Your task to perform on an android device: turn on translation in the chrome app Image 0: 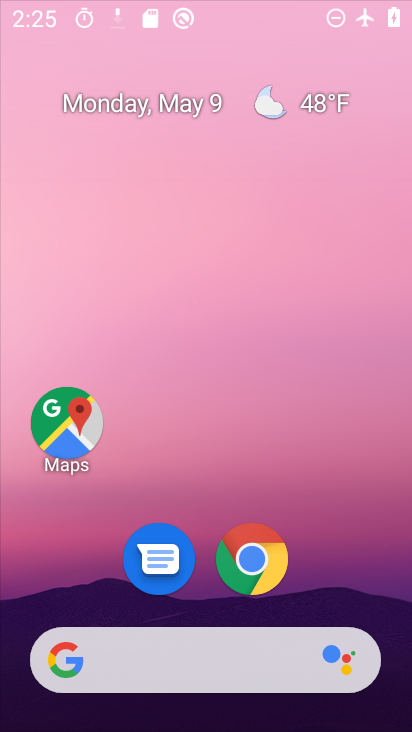
Step 0: click (263, 374)
Your task to perform on an android device: turn on translation in the chrome app Image 1: 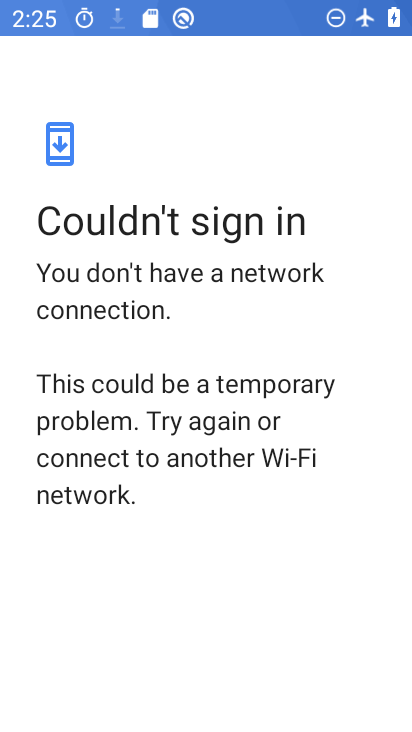
Step 1: drag from (239, 640) to (287, 334)
Your task to perform on an android device: turn on translation in the chrome app Image 2: 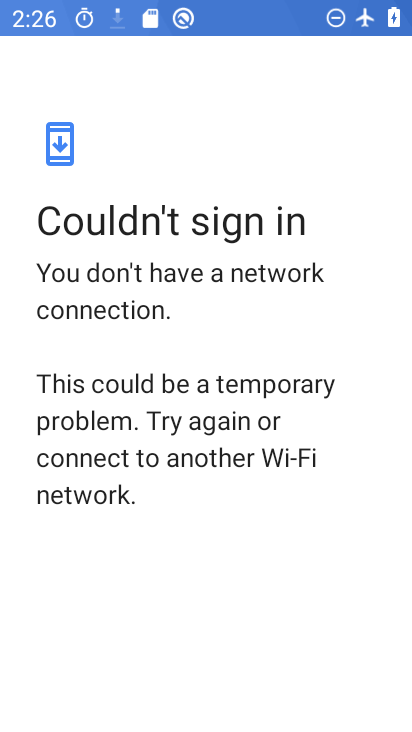
Step 2: drag from (323, 398) to (347, 349)
Your task to perform on an android device: turn on translation in the chrome app Image 3: 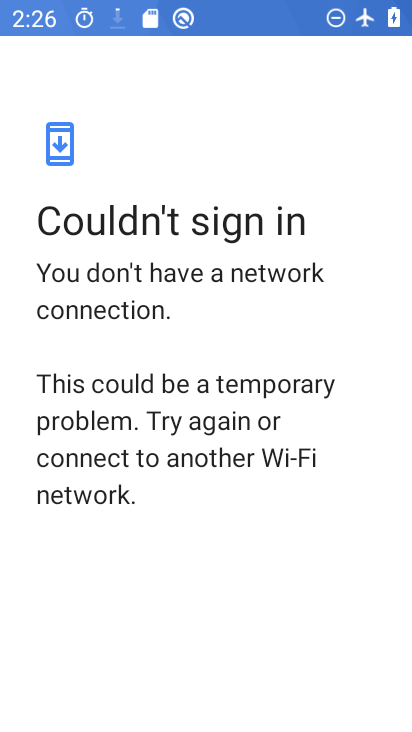
Step 3: press back button
Your task to perform on an android device: turn on translation in the chrome app Image 4: 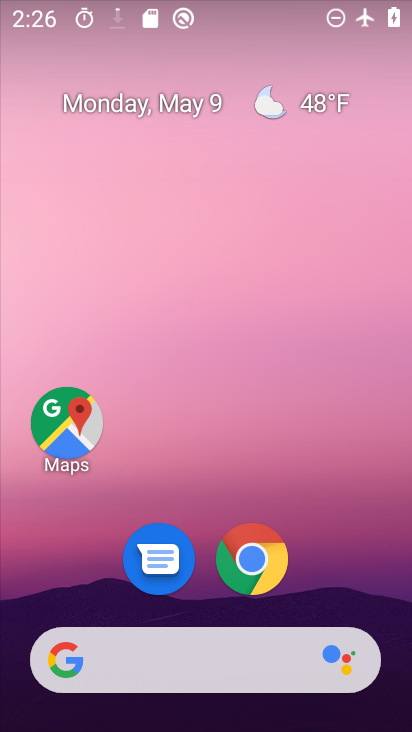
Step 4: drag from (212, 604) to (254, 42)
Your task to perform on an android device: turn on translation in the chrome app Image 5: 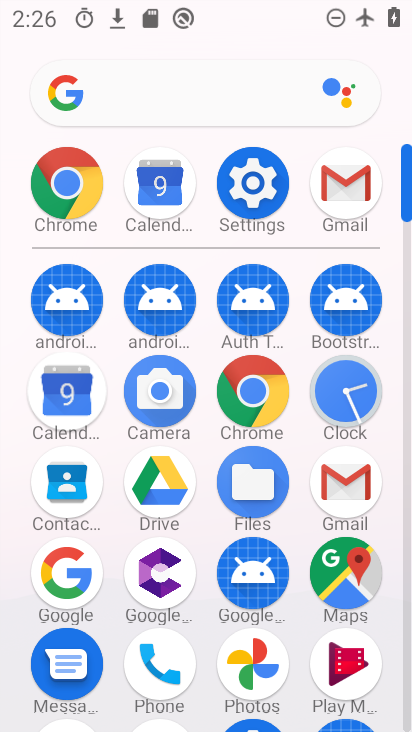
Step 5: click (241, 404)
Your task to perform on an android device: turn on translation in the chrome app Image 6: 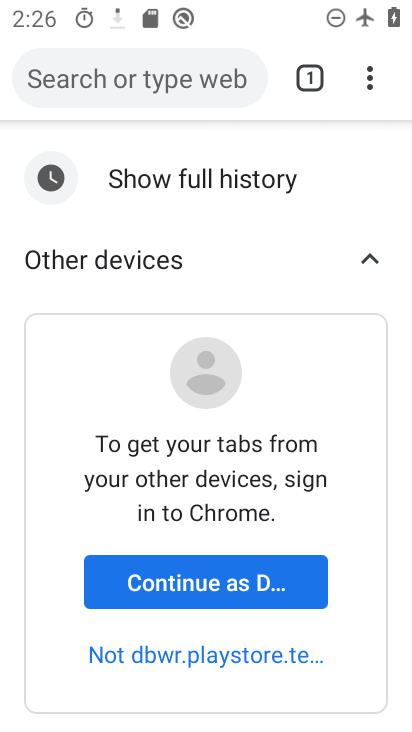
Step 6: drag from (182, 615) to (273, 55)
Your task to perform on an android device: turn on translation in the chrome app Image 7: 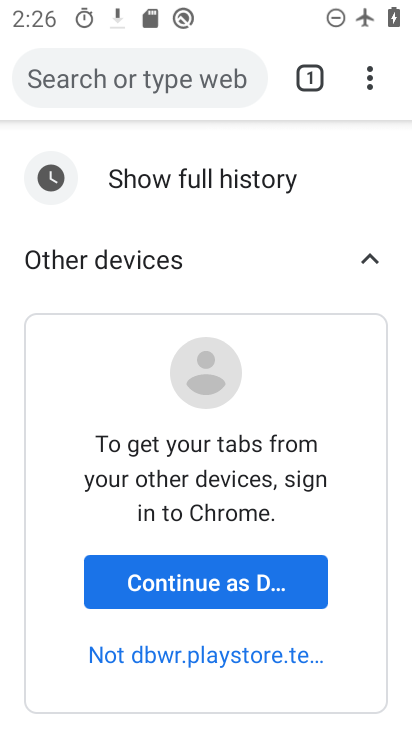
Step 7: click (368, 80)
Your task to perform on an android device: turn on translation in the chrome app Image 8: 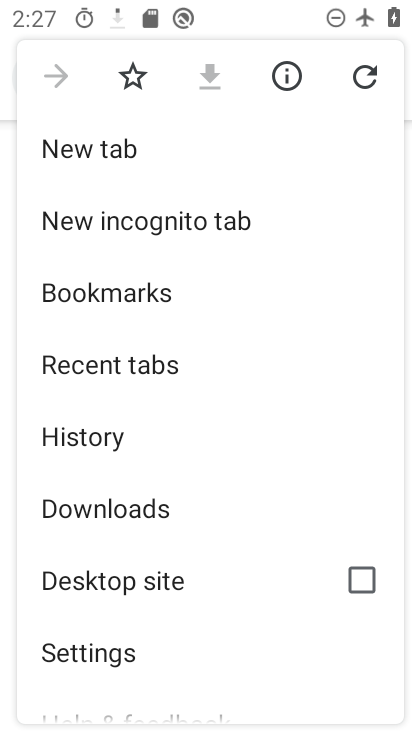
Step 8: click (174, 659)
Your task to perform on an android device: turn on translation in the chrome app Image 9: 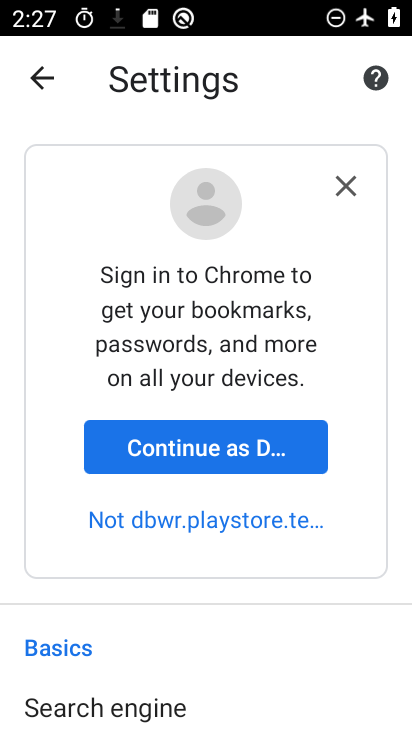
Step 9: drag from (269, 620) to (327, 194)
Your task to perform on an android device: turn on translation in the chrome app Image 10: 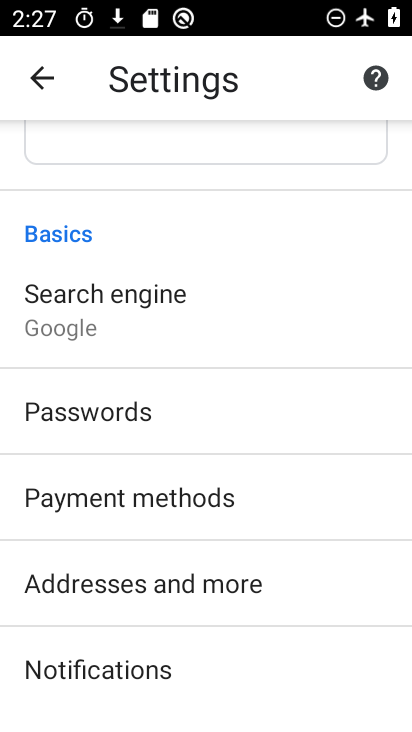
Step 10: drag from (227, 604) to (307, 115)
Your task to perform on an android device: turn on translation in the chrome app Image 11: 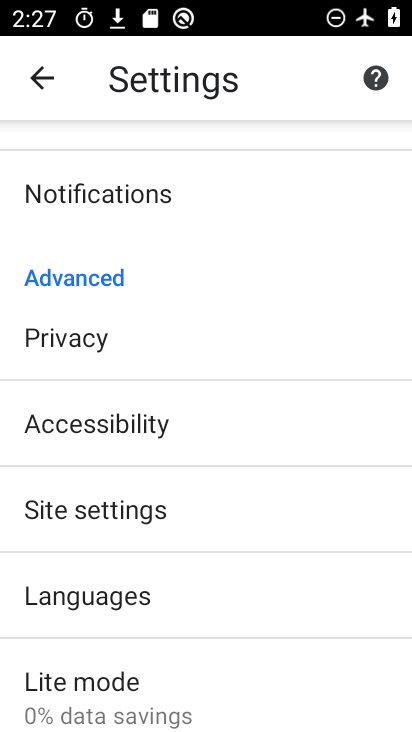
Step 11: click (123, 619)
Your task to perform on an android device: turn on translation in the chrome app Image 12: 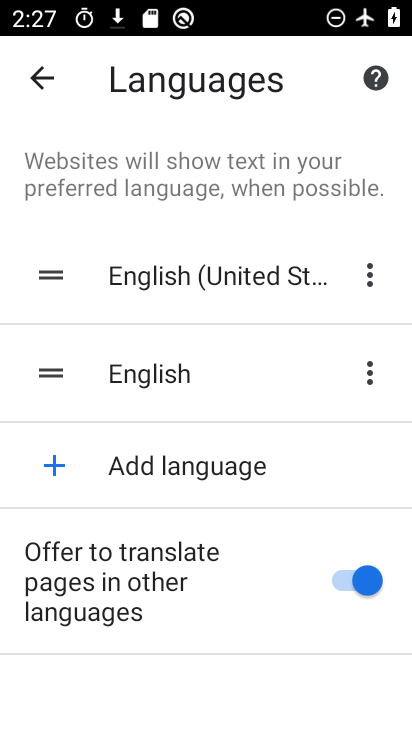
Step 12: task complete